Your task to perform on an android device: Open Chrome and go to the settings page Image 0: 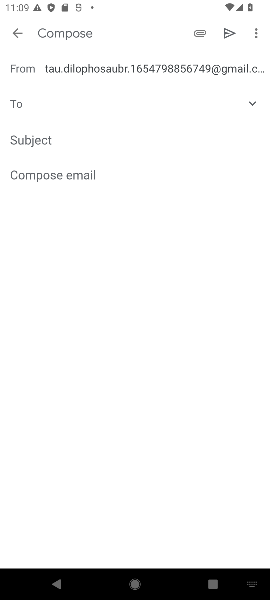
Step 0: press home button
Your task to perform on an android device: Open Chrome and go to the settings page Image 1: 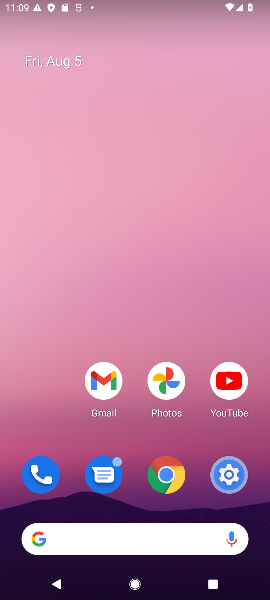
Step 1: click (165, 474)
Your task to perform on an android device: Open Chrome and go to the settings page Image 2: 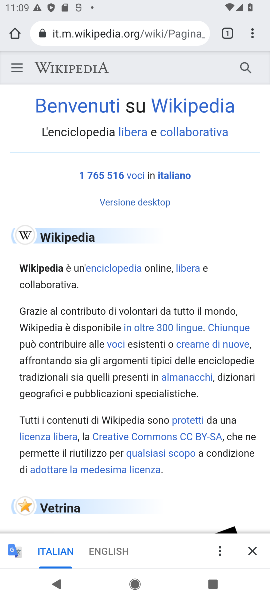
Step 2: click (247, 33)
Your task to perform on an android device: Open Chrome and go to the settings page Image 3: 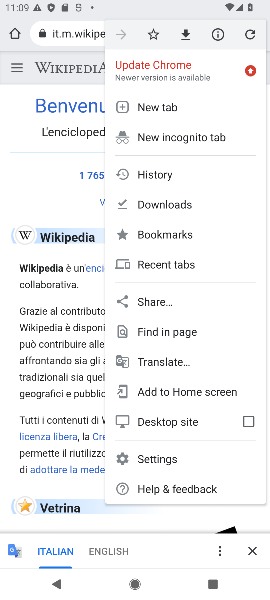
Step 3: click (145, 463)
Your task to perform on an android device: Open Chrome and go to the settings page Image 4: 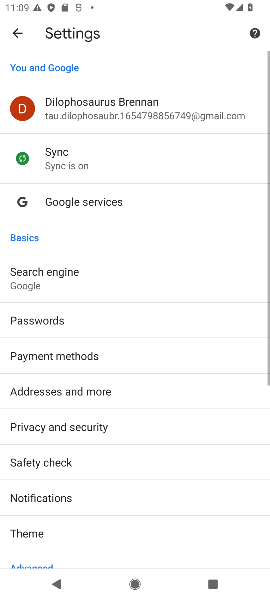
Step 4: task complete